Your task to perform on an android device: Do I have any events this weekend? Image 0: 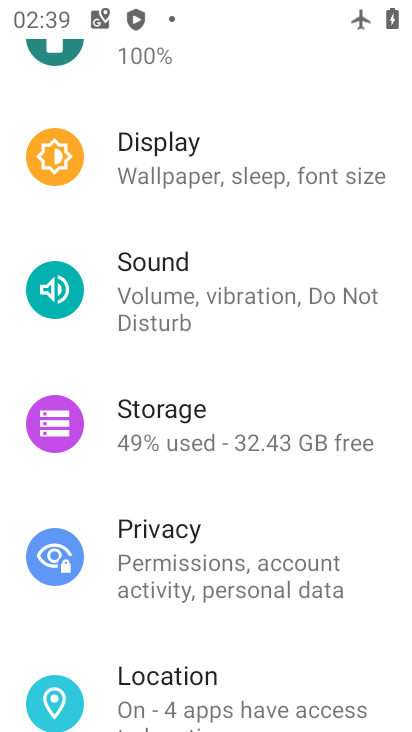
Step 0: press home button
Your task to perform on an android device: Do I have any events this weekend? Image 1: 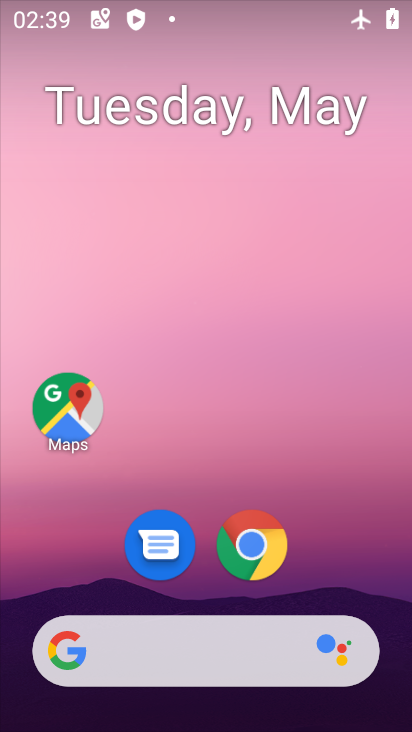
Step 1: drag from (384, 611) to (331, 171)
Your task to perform on an android device: Do I have any events this weekend? Image 2: 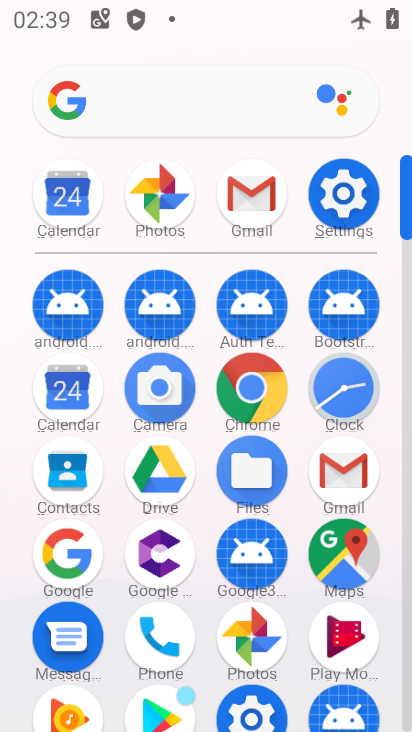
Step 2: click (63, 388)
Your task to perform on an android device: Do I have any events this weekend? Image 3: 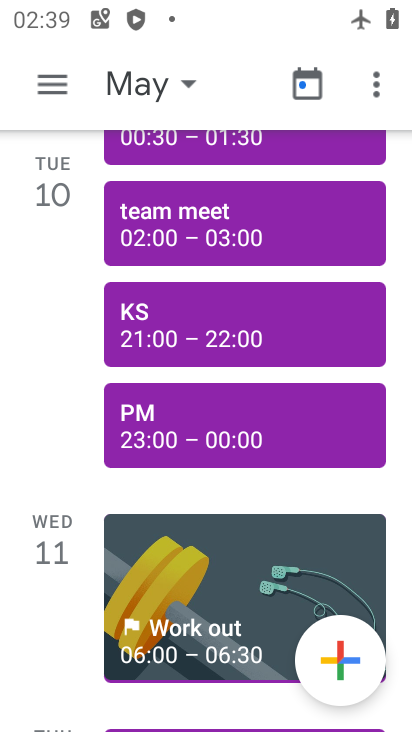
Step 3: drag from (214, 508) to (211, 345)
Your task to perform on an android device: Do I have any events this weekend? Image 4: 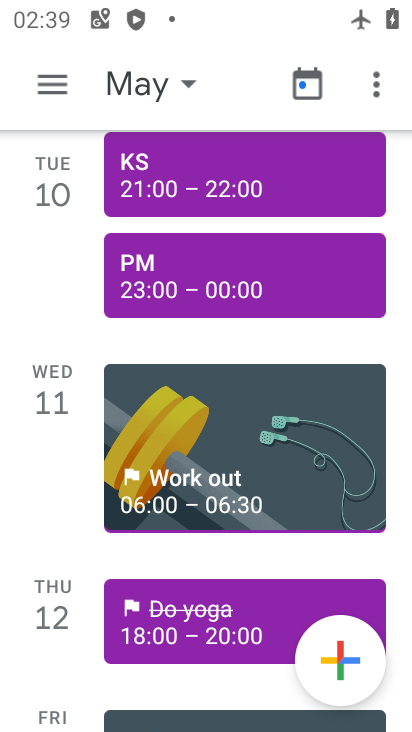
Step 4: click (45, 86)
Your task to perform on an android device: Do I have any events this weekend? Image 5: 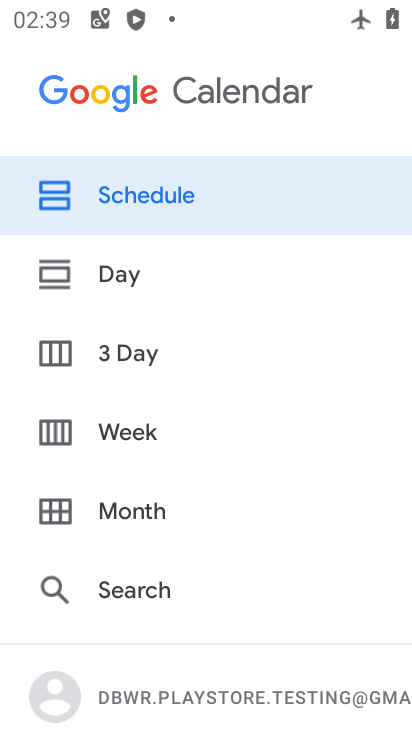
Step 5: click (136, 431)
Your task to perform on an android device: Do I have any events this weekend? Image 6: 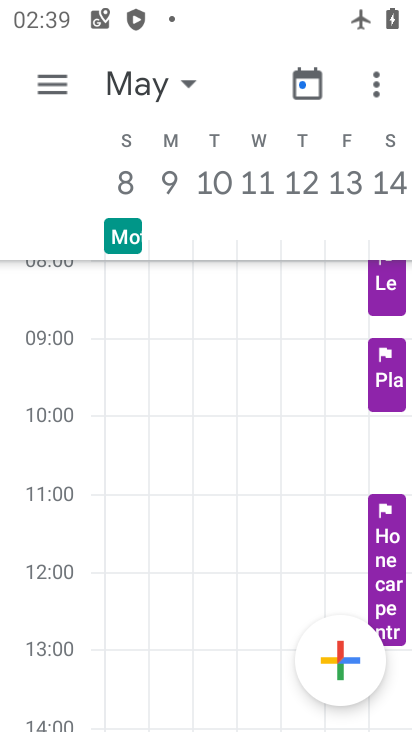
Step 6: click (186, 83)
Your task to perform on an android device: Do I have any events this weekend? Image 7: 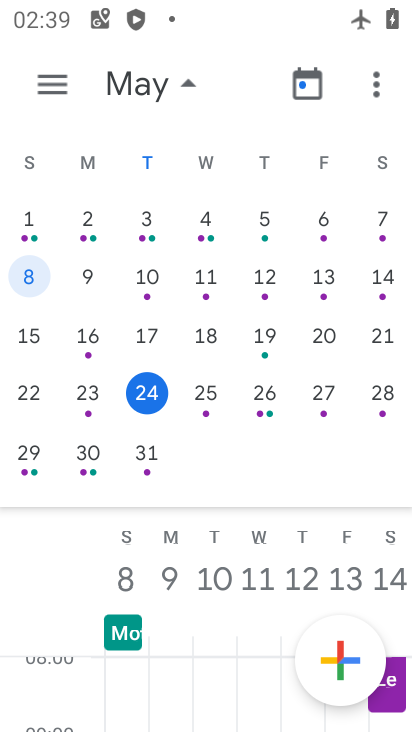
Step 7: click (145, 393)
Your task to perform on an android device: Do I have any events this weekend? Image 8: 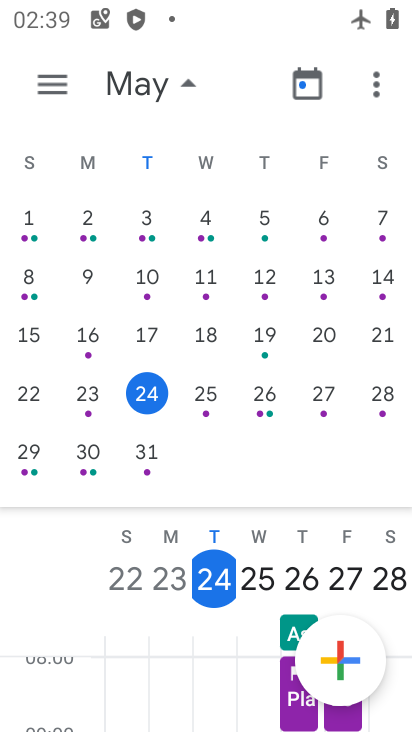
Step 8: task complete